Your task to perform on an android device: turn smart compose on in the gmail app Image 0: 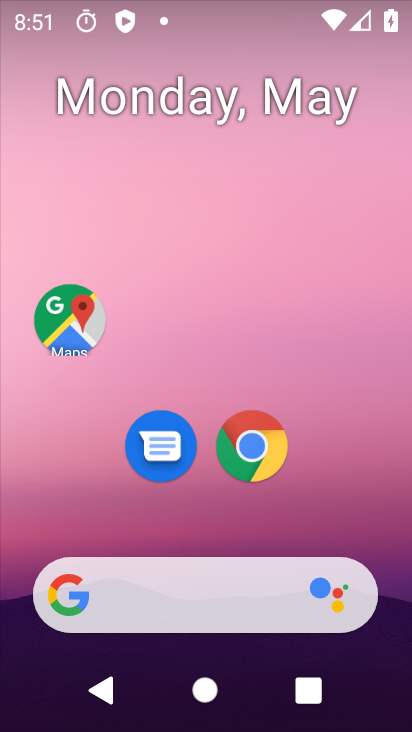
Step 0: drag from (386, 546) to (340, 0)
Your task to perform on an android device: turn smart compose on in the gmail app Image 1: 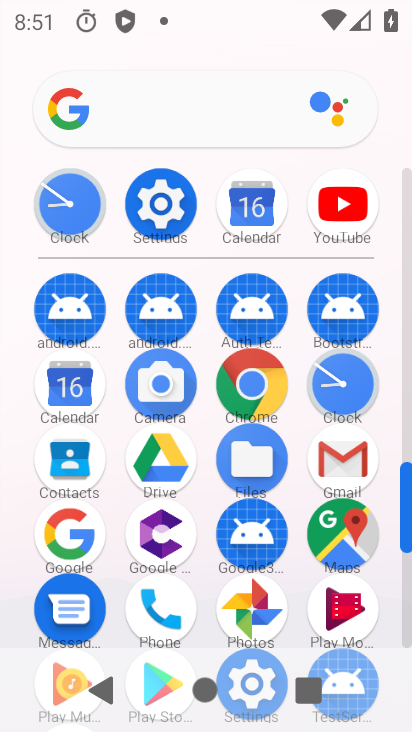
Step 1: click (345, 463)
Your task to perform on an android device: turn smart compose on in the gmail app Image 2: 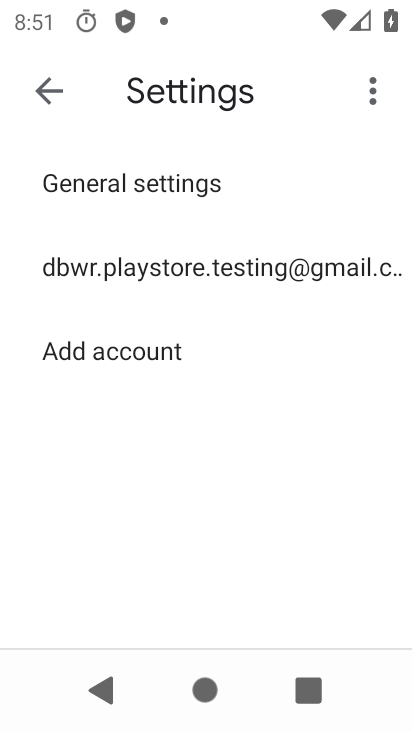
Step 2: click (112, 277)
Your task to perform on an android device: turn smart compose on in the gmail app Image 3: 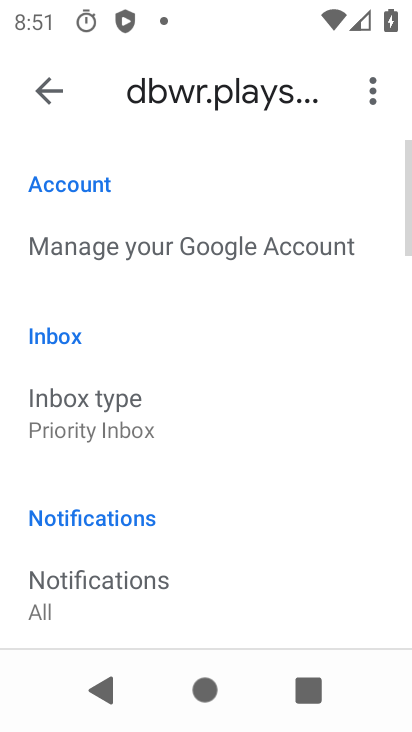
Step 3: task complete